Your task to perform on an android device: Open eBay Image 0: 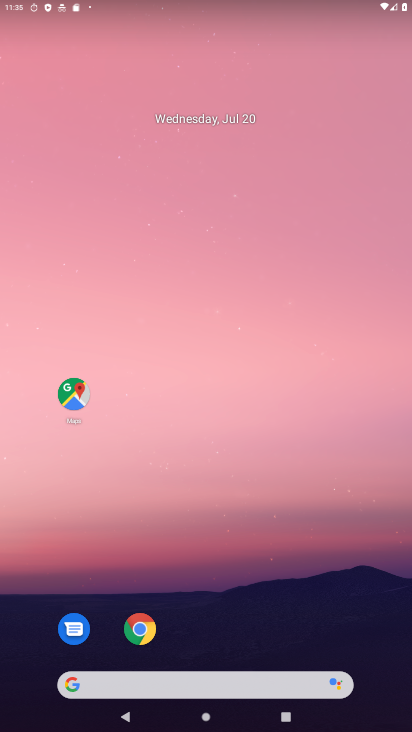
Step 0: drag from (240, 667) to (227, 4)
Your task to perform on an android device: Open eBay Image 1: 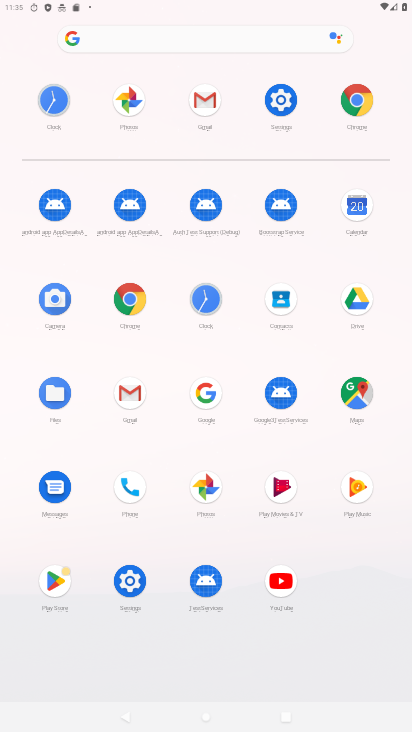
Step 1: click (124, 292)
Your task to perform on an android device: Open eBay Image 2: 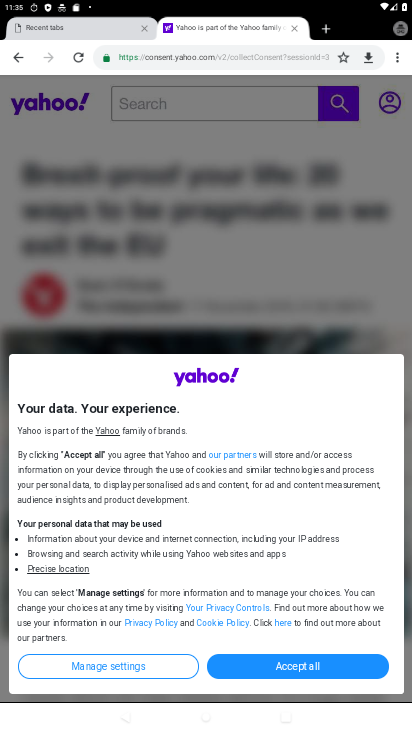
Step 2: drag from (396, 59) to (347, 56)
Your task to perform on an android device: Open eBay Image 3: 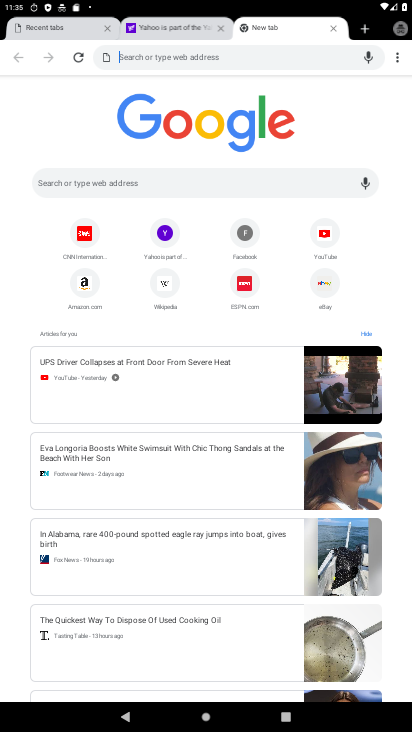
Step 3: click (328, 286)
Your task to perform on an android device: Open eBay Image 4: 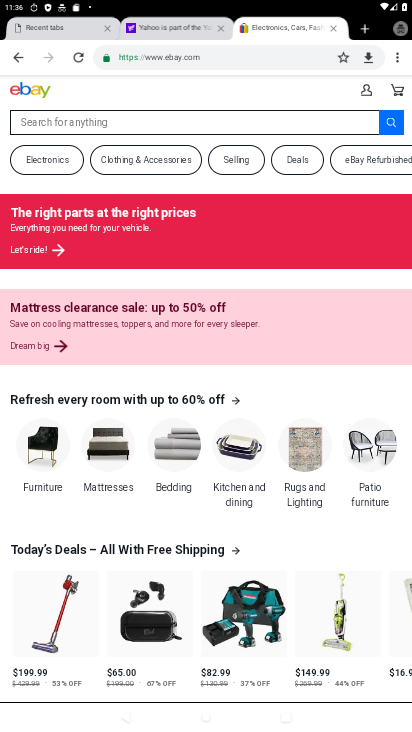
Step 4: task complete